Your task to perform on an android device: turn off sleep mode Image 0: 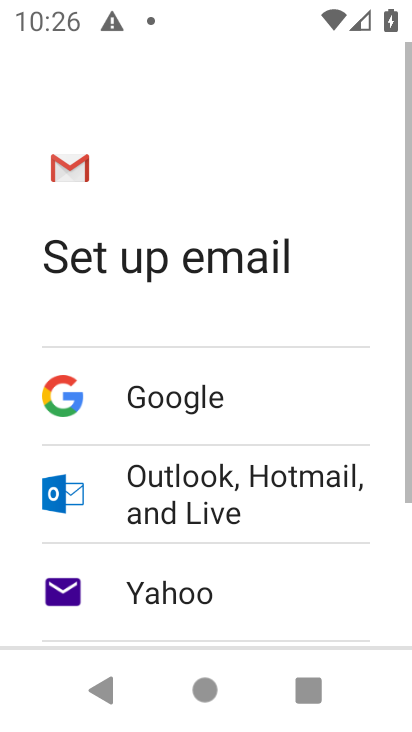
Step 0: press home button
Your task to perform on an android device: turn off sleep mode Image 1: 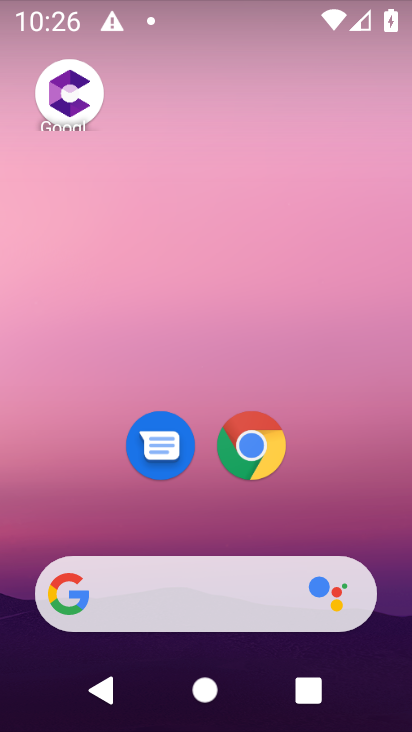
Step 1: drag from (185, 510) to (204, 43)
Your task to perform on an android device: turn off sleep mode Image 2: 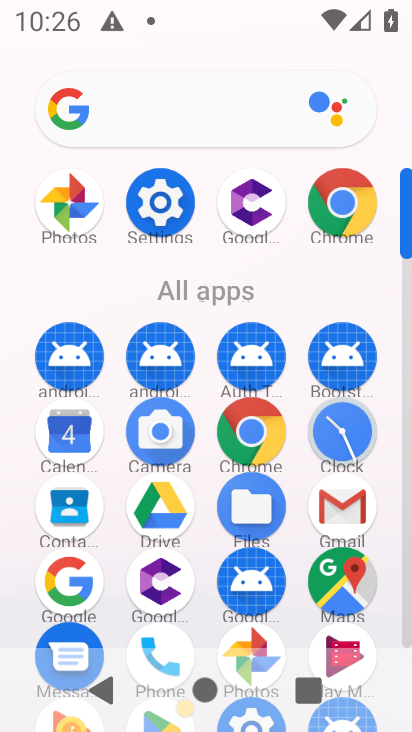
Step 2: click (151, 204)
Your task to perform on an android device: turn off sleep mode Image 3: 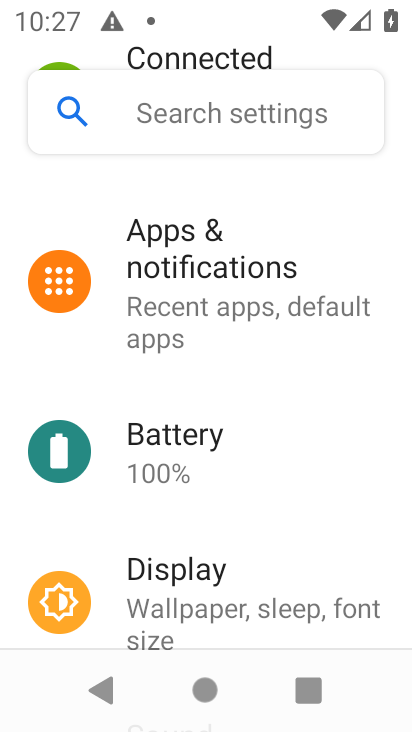
Step 3: task complete